Your task to perform on an android device: Open accessibility settings Image 0: 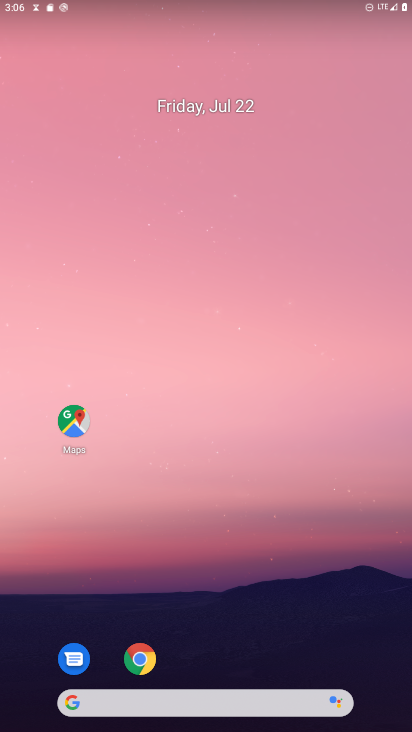
Step 0: drag from (242, 668) to (323, 29)
Your task to perform on an android device: Open accessibility settings Image 1: 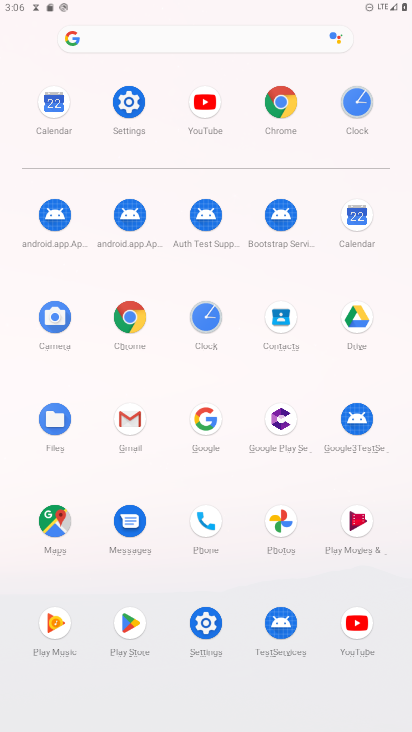
Step 1: click (122, 111)
Your task to perform on an android device: Open accessibility settings Image 2: 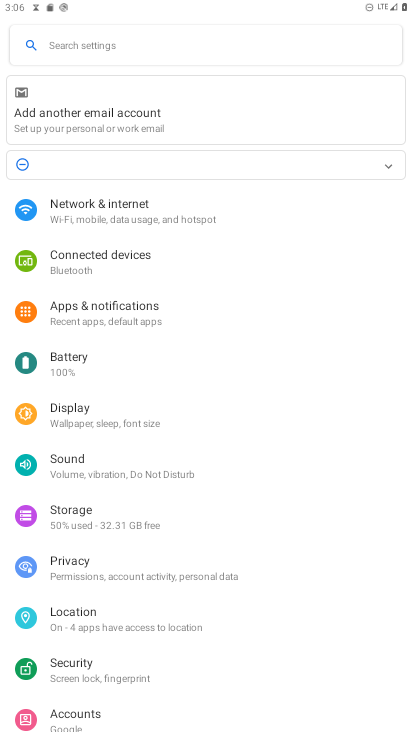
Step 2: drag from (191, 619) to (228, 303)
Your task to perform on an android device: Open accessibility settings Image 3: 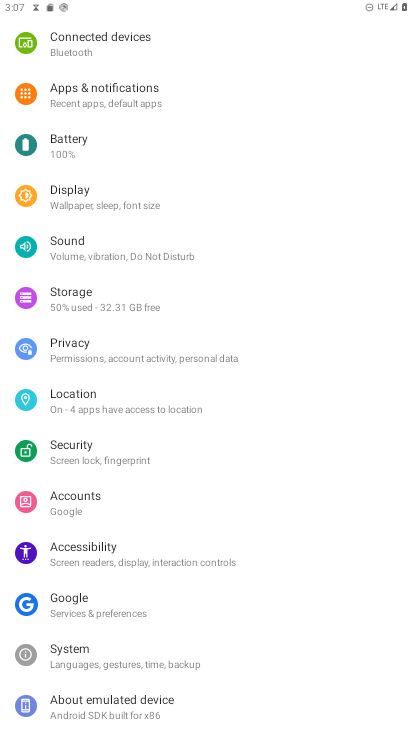
Step 3: click (77, 554)
Your task to perform on an android device: Open accessibility settings Image 4: 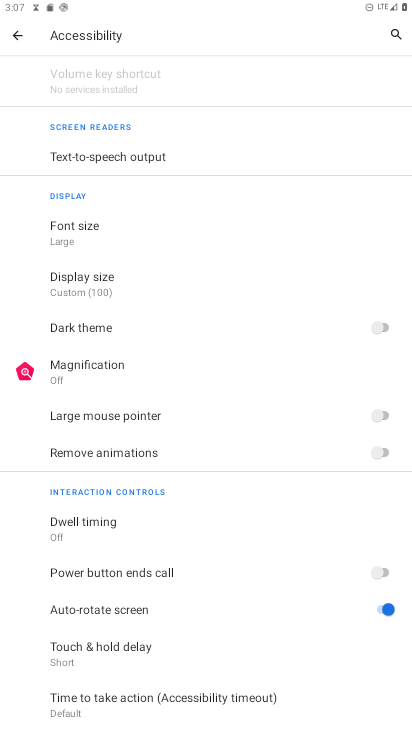
Step 4: task complete